Your task to perform on an android device: Check the settings for the Lyft app Image 0: 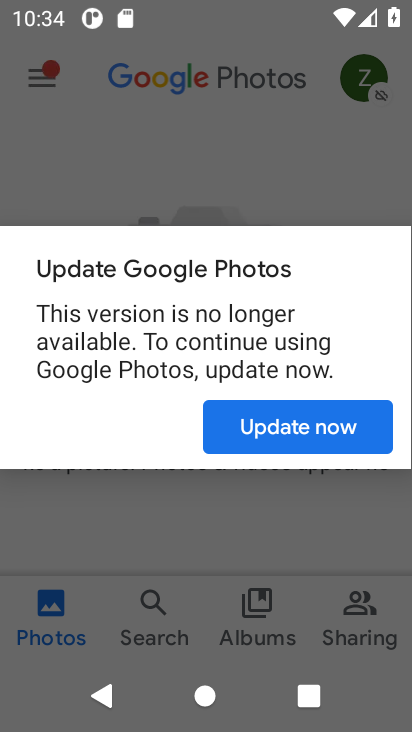
Step 0: press home button
Your task to perform on an android device: Check the settings for the Lyft app Image 1: 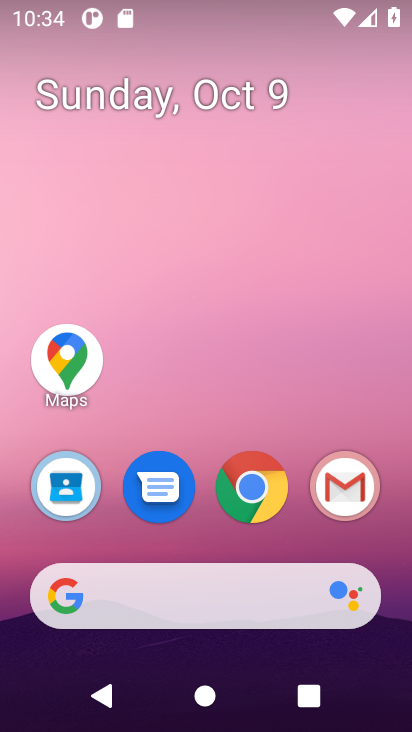
Step 1: drag from (253, 224) to (249, 31)
Your task to perform on an android device: Check the settings for the Lyft app Image 2: 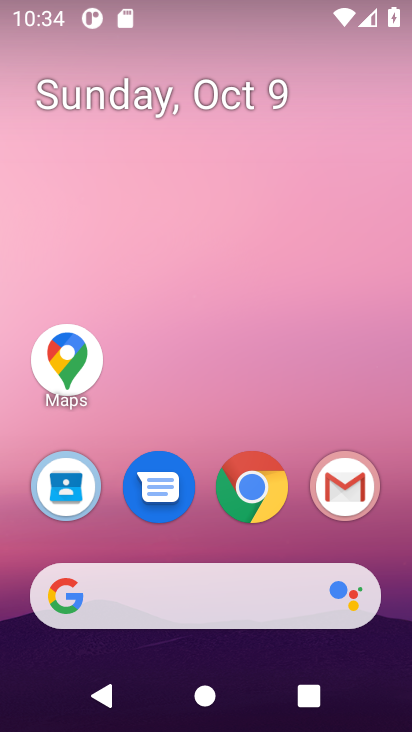
Step 2: drag from (259, 624) to (255, 7)
Your task to perform on an android device: Check the settings for the Lyft app Image 3: 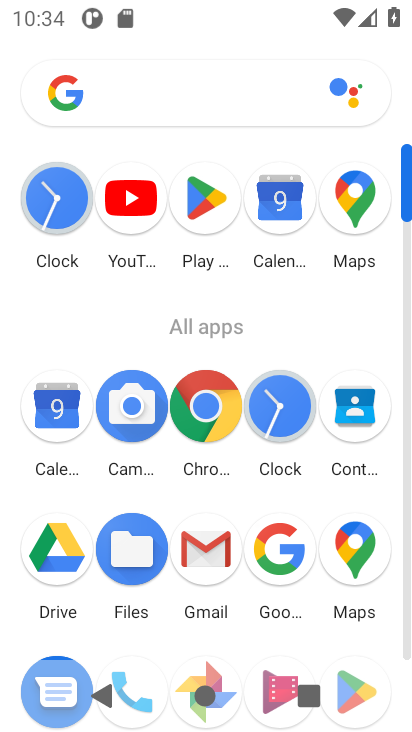
Step 3: drag from (332, 613) to (317, 235)
Your task to perform on an android device: Check the settings for the Lyft app Image 4: 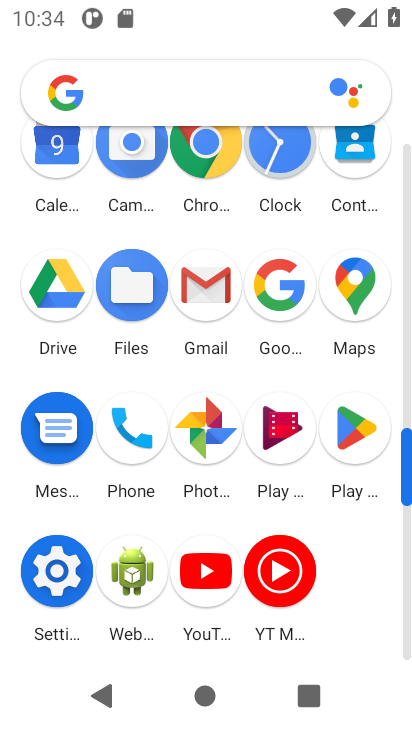
Step 4: click (347, 449)
Your task to perform on an android device: Check the settings for the Lyft app Image 5: 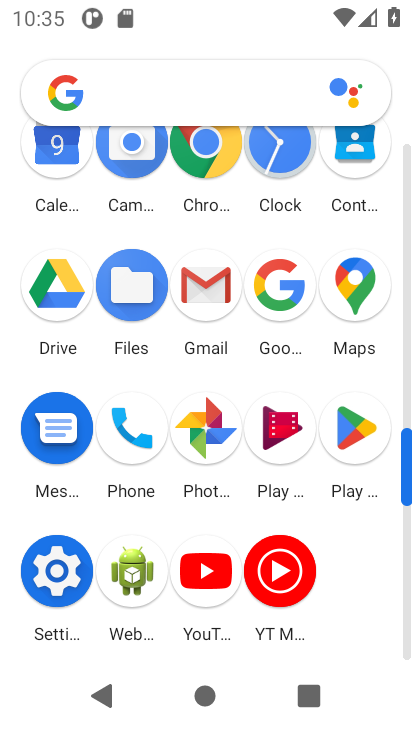
Step 5: click (361, 429)
Your task to perform on an android device: Check the settings for the Lyft app Image 6: 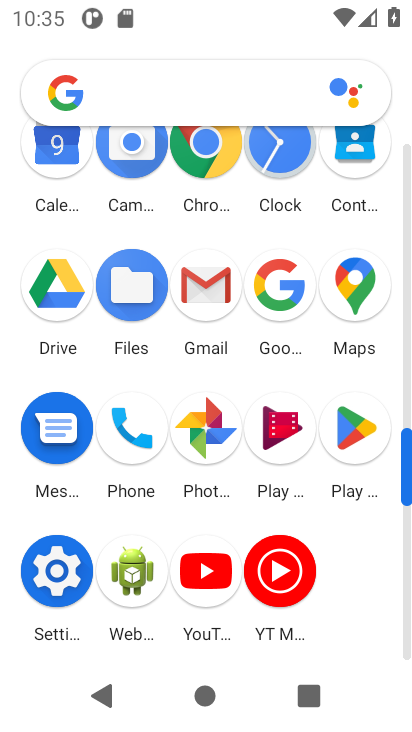
Step 6: click (338, 443)
Your task to perform on an android device: Check the settings for the Lyft app Image 7: 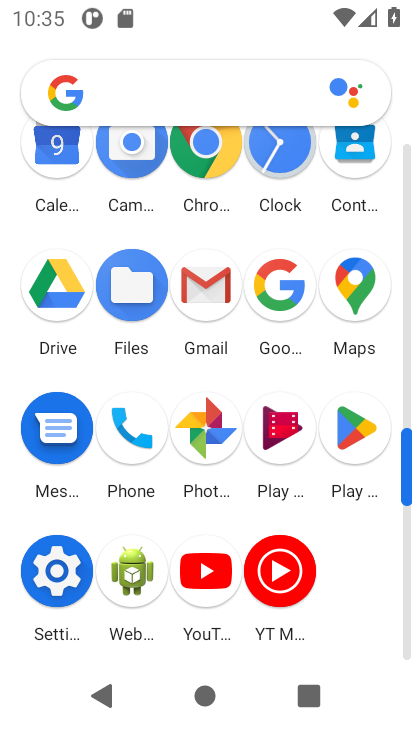
Step 7: task complete